Your task to perform on an android device: Do I have any events tomorrow? Image 0: 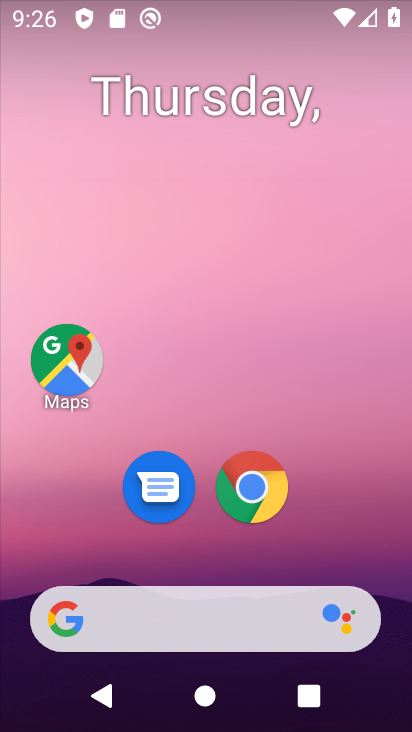
Step 0: drag from (317, 539) to (191, 175)
Your task to perform on an android device: Do I have any events tomorrow? Image 1: 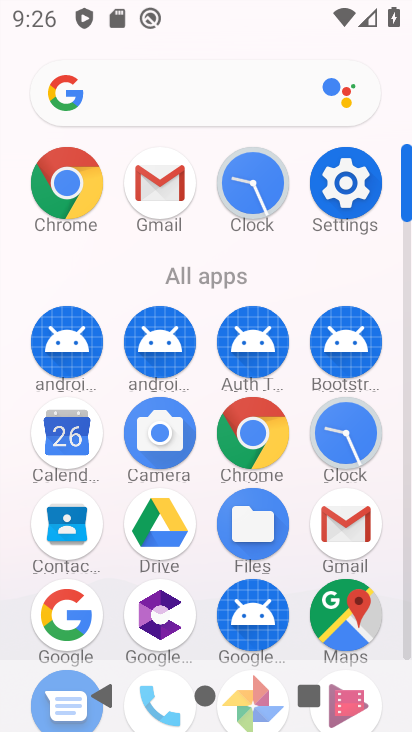
Step 1: click (80, 445)
Your task to perform on an android device: Do I have any events tomorrow? Image 2: 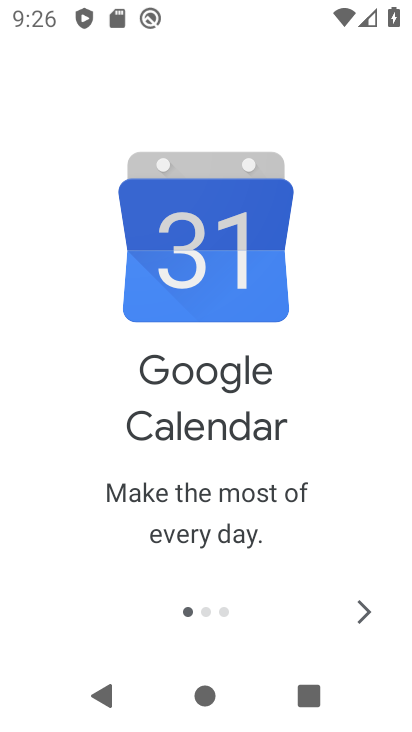
Step 2: click (353, 610)
Your task to perform on an android device: Do I have any events tomorrow? Image 3: 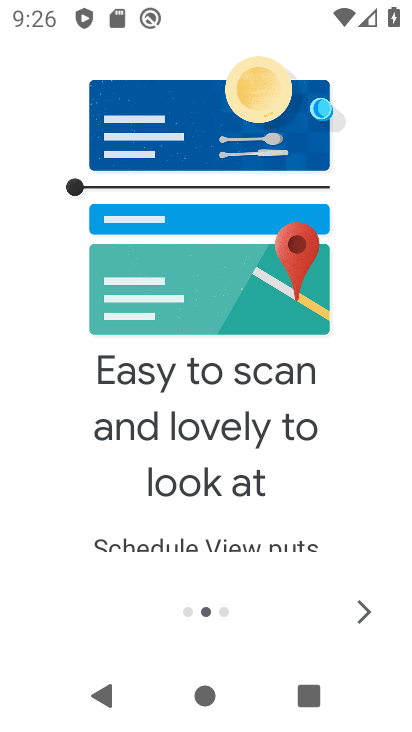
Step 3: click (353, 610)
Your task to perform on an android device: Do I have any events tomorrow? Image 4: 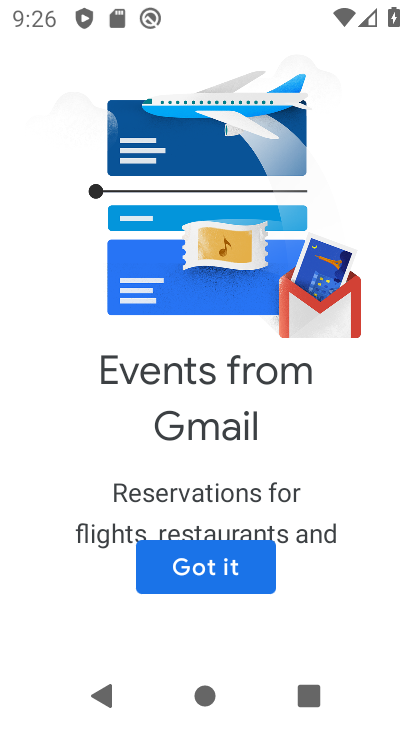
Step 4: click (247, 578)
Your task to perform on an android device: Do I have any events tomorrow? Image 5: 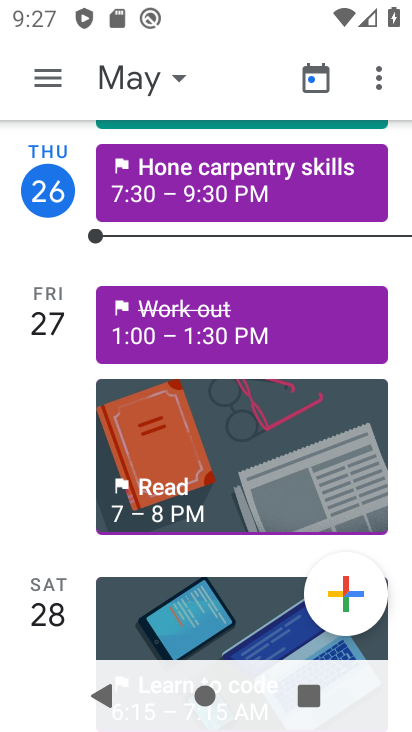
Step 5: click (156, 335)
Your task to perform on an android device: Do I have any events tomorrow? Image 6: 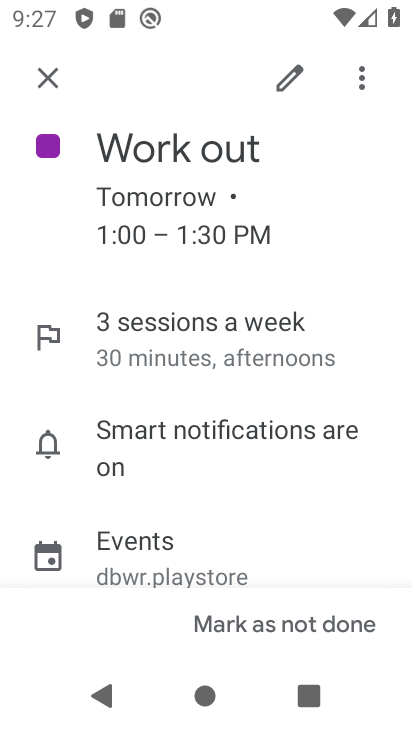
Step 6: click (41, 79)
Your task to perform on an android device: Do I have any events tomorrow? Image 7: 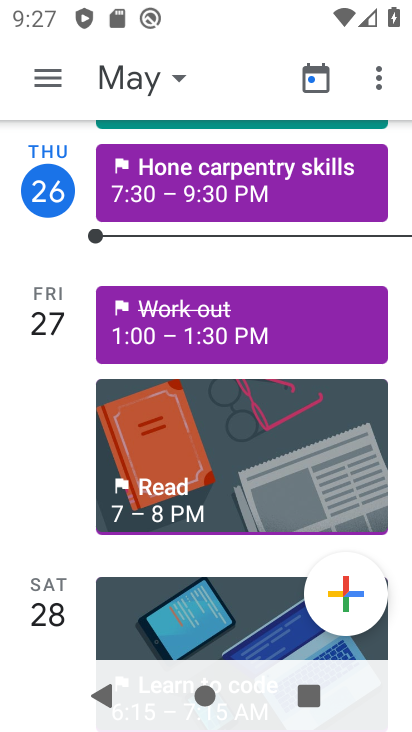
Step 7: click (189, 443)
Your task to perform on an android device: Do I have any events tomorrow? Image 8: 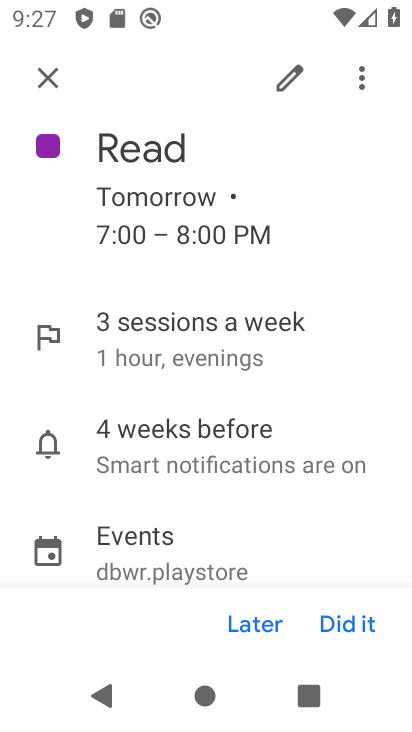
Step 8: click (59, 82)
Your task to perform on an android device: Do I have any events tomorrow? Image 9: 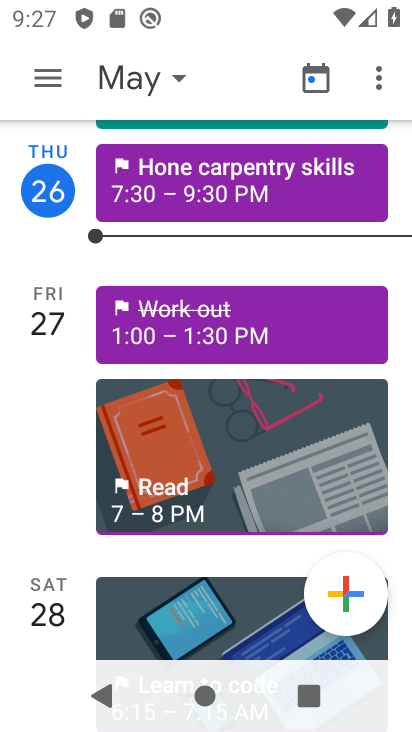
Step 9: task complete